Your task to perform on an android device: turn off picture-in-picture Image 0: 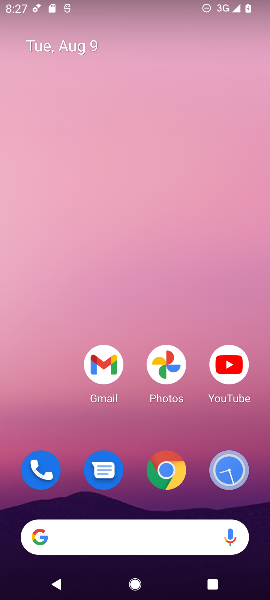
Step 0: click (165, 470)
Your task to perform on an android device: turn off picture-in-picture Image 1: 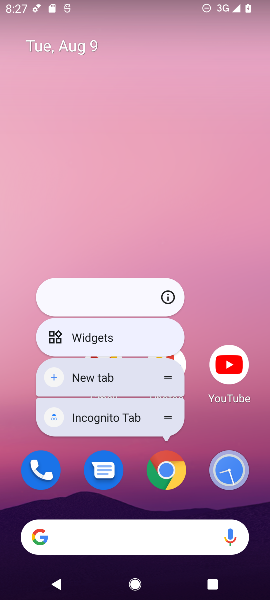
Step 1: click (168, 298)
Your task to perform on an android device: turn off picture-in-picture Image 2: 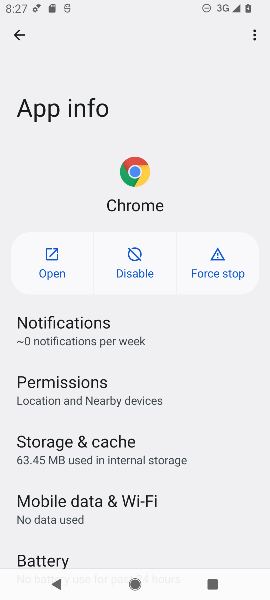
Step 2: drag from (122, 517) to (178, 325)
Your task to perform on an android device: turn off picture-in-picture Image 3: 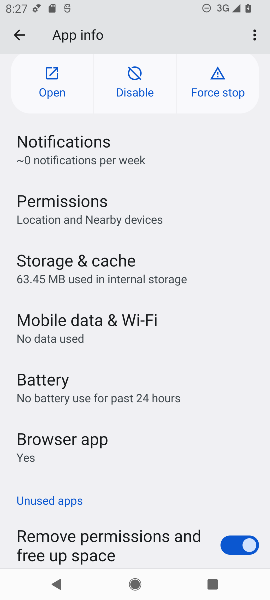
Step 3: drag from (120, 489) to (198, 334)
Your task to perform on an android device: turn off picture-in-picture Image 4: 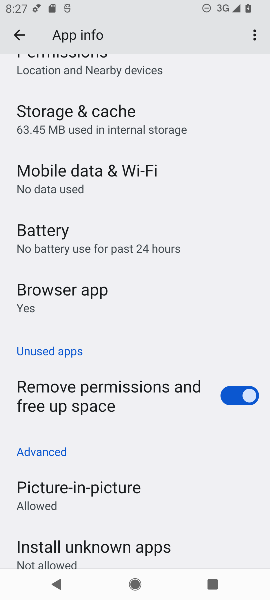
Step 4: click (124, 488)
Your task to perform on an android device: turn off picture-in-picture Image 5: 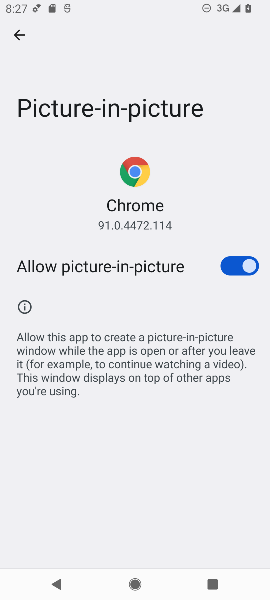
Step 5: click (223, 269)
Your task to perform on an android device: turn off picture-in-picture Image 6: 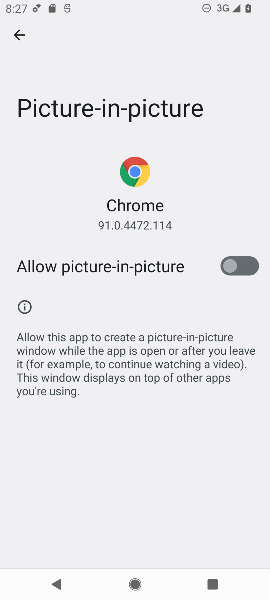
Step 6: task complete